Your task to perform on an android device: open sync settings in chrome Image 0: 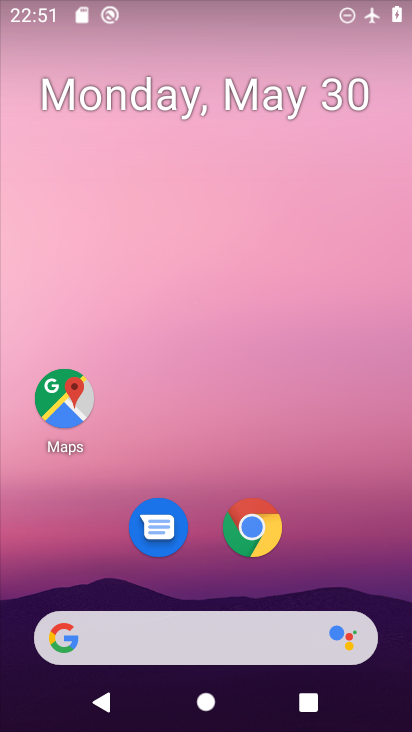
Step 0: click (260, 521)
Your task to perform on an android device: open sync settings in chrome Image 1: 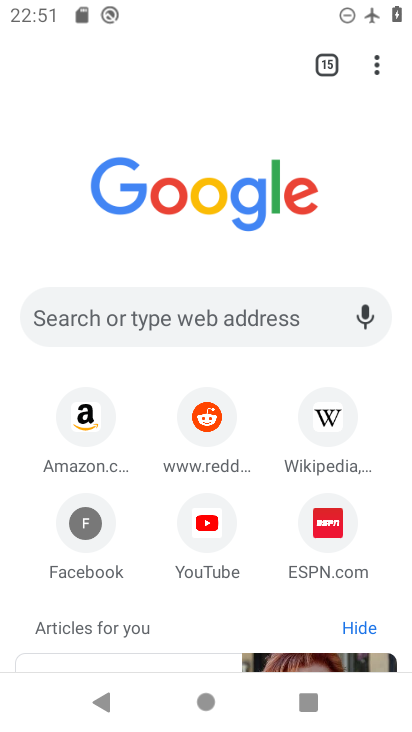
Step 1: click (379, 63)
Your task to perform on an android device: open sync settings in chrome Image 2: 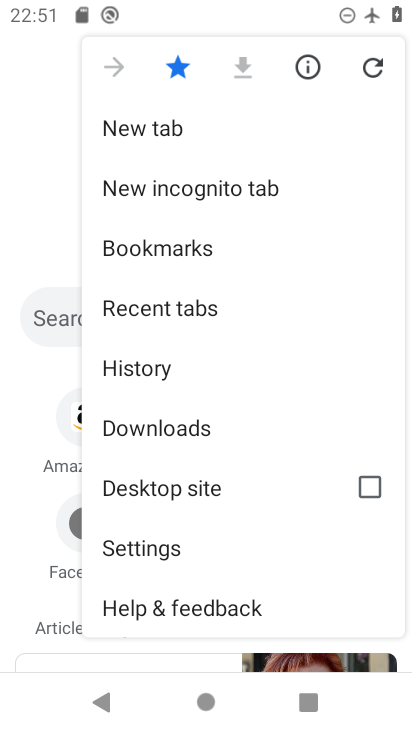
Step 2: drag from (211, 555) to (246, 394)
Your task to perform on an android device: open sync settings in chrome Image 3: 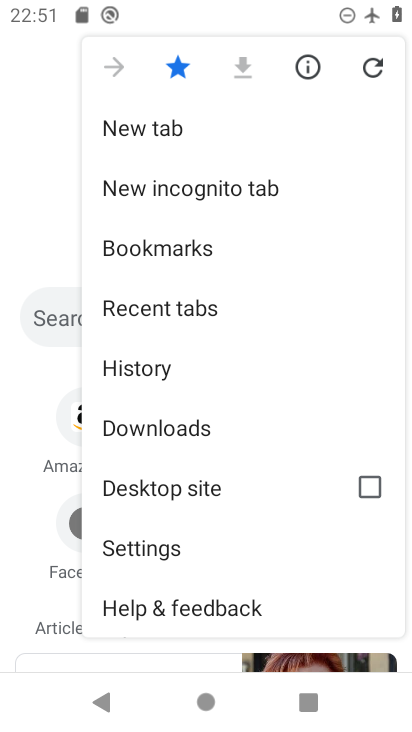
Step 3: click (198, 543)
Your task to perform on an android device: open sync settings in chrome Image 4: 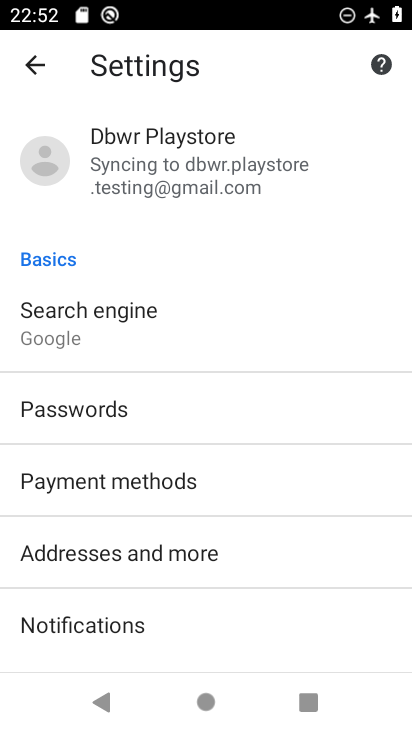
Step 4: click (137, 168)
Your task to perform on an android device: open sync settings in chrome Image 5: 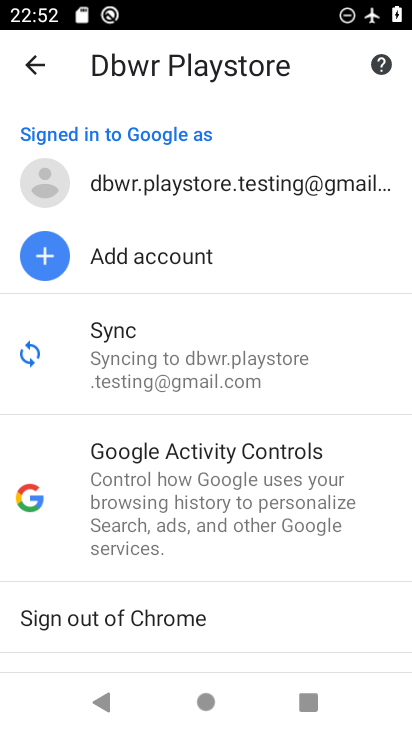
Step 5: task complete